Your task to perform on an android device: Go to ESPN.com Image 0: 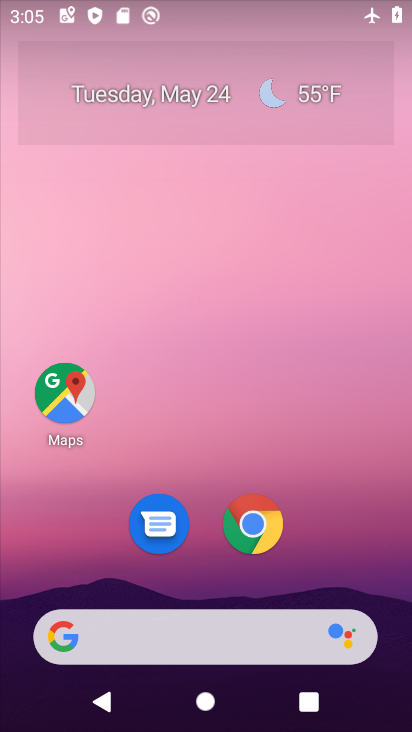
Step 0: click (242, 647)
Your task to perform on an android device: Go to ESPN.com Image 1: 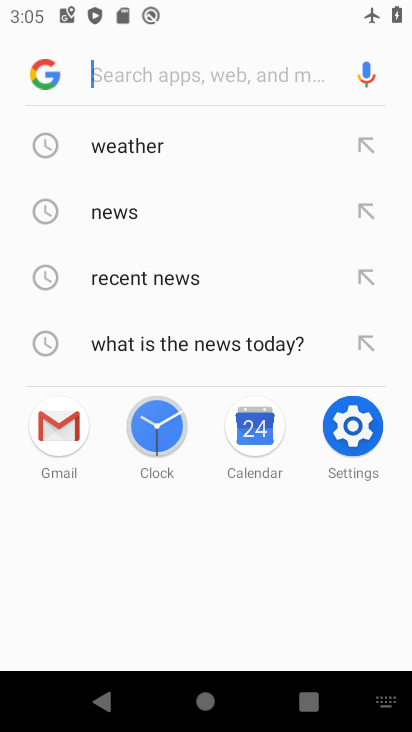
Step 1: type "espn.com"
Your task to perform on an android device: Go to ESPN.com Image 2: 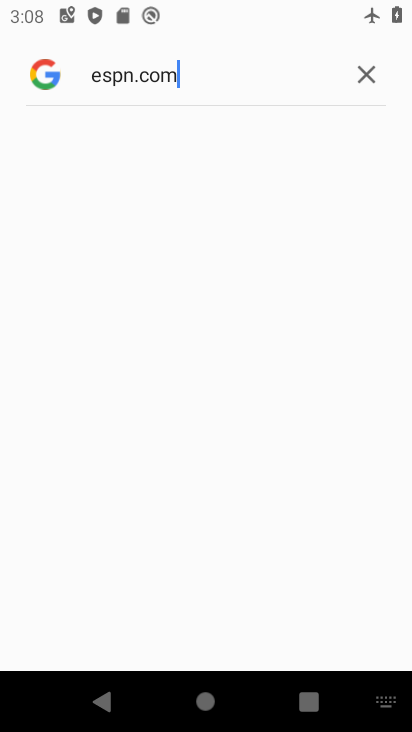
Step 2: task complete